Your task to perform on an android device: change text size in settings app Image 0: 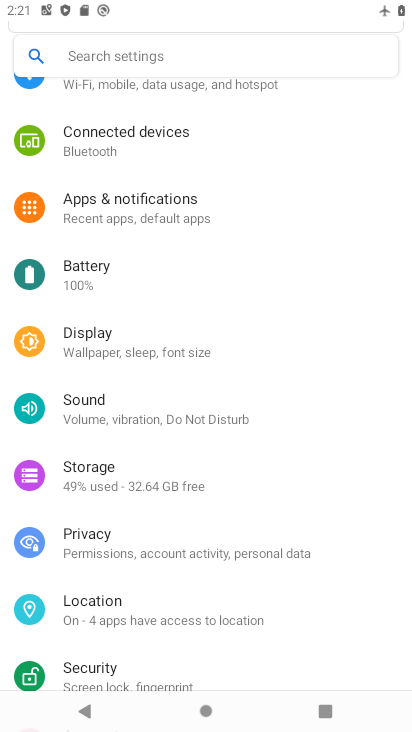
Step 0: press home button
Your task to perform on an android device: change text size in settings app Image 1: 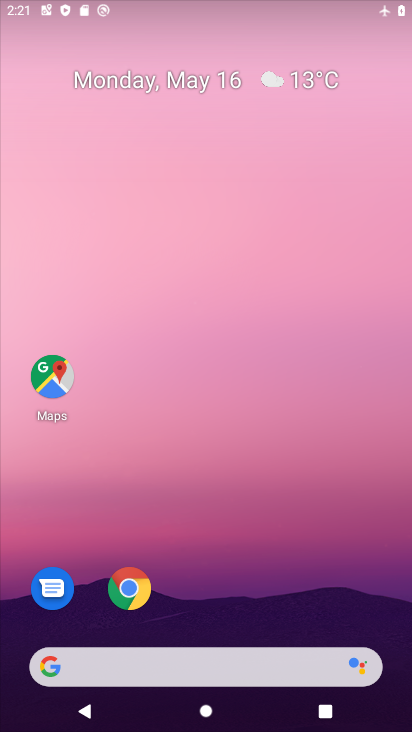
Step 1: drag from (297, 647) to (287, 24)
Your task to perform on an android device: change text size in settings app Image 2: 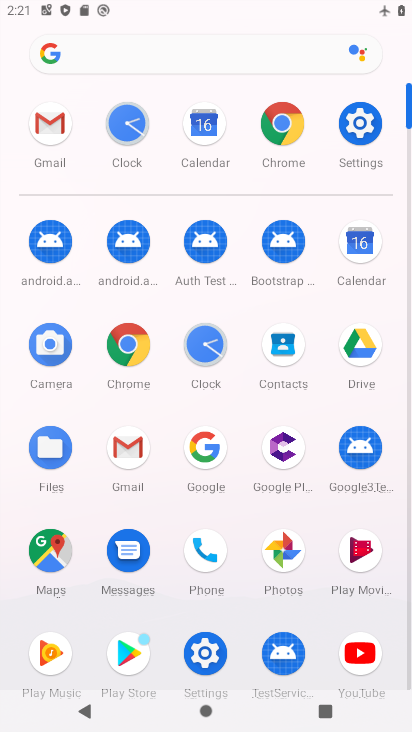
Step 2: click (368, 119)
Your task to perform on an android device: change text size in settings app Image 3: 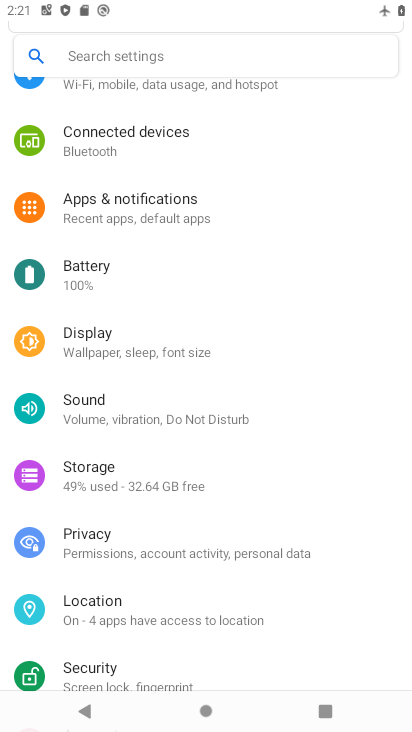
Step 3: drag from (201, 272) to (241, 622)
Your task to perform on an android device: change text size in settings app Image 4: 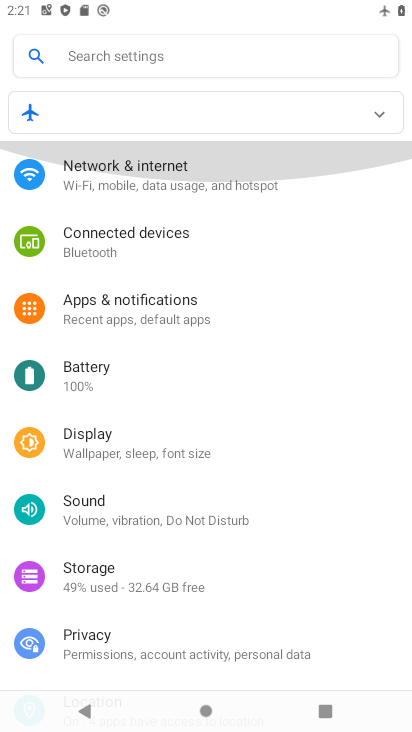
Step 4: drag from (234, 641) to (231, 141)
Your task to perform on an android device: change text size in settings app Image 5: 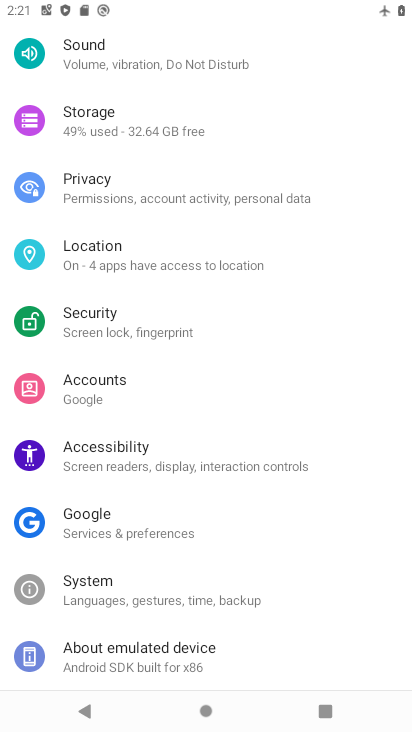
Step 5: drag from (150, 661) to (198, 418)
Your task to perform on an android device: change text size in settings app Image 6: 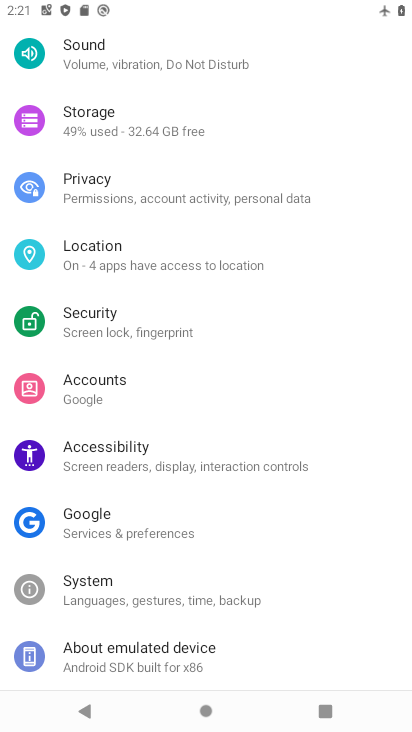
Step 6: click (121, 450)
Your task to perform on an android device: change text size in settings app Image 7: 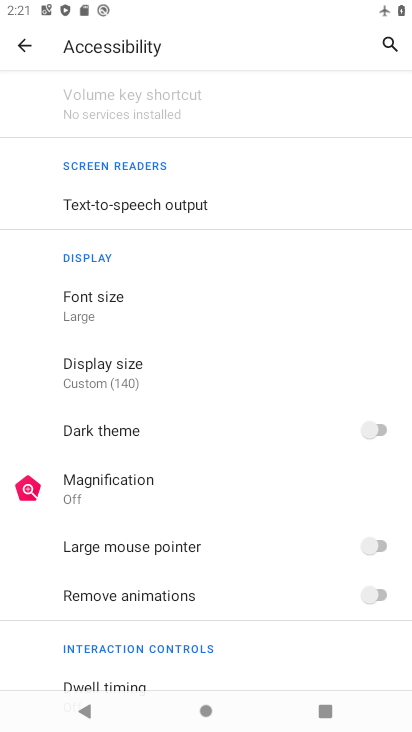
Step 7: click (138, 307)
Your task to perform on an android device: change text size in settings app Image 8: 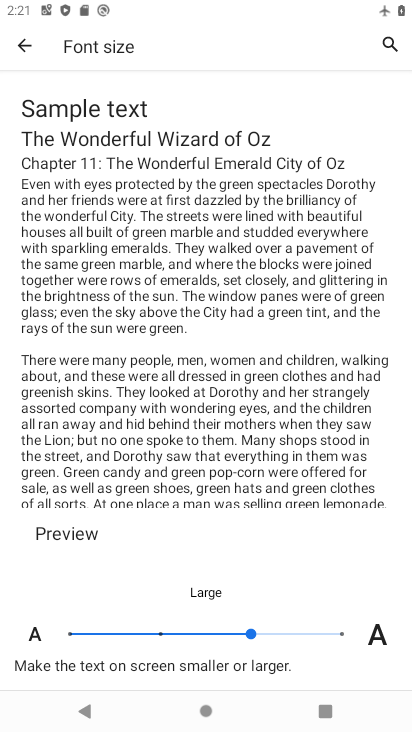
Step 8: task complete